Your task to perform on an android device: set the stopwatch Image 0: 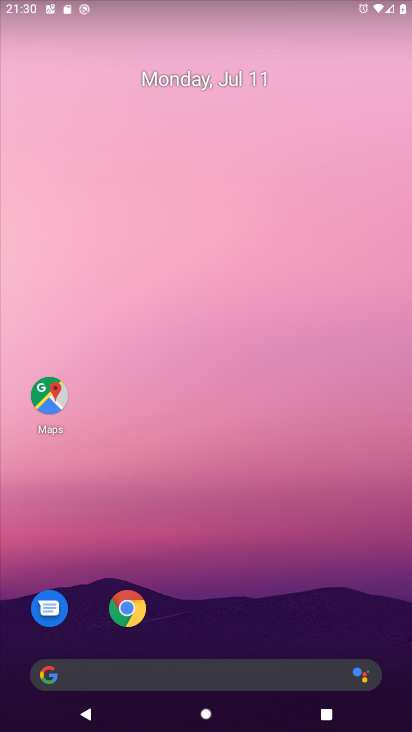
Step 0: drag from (254, 620) to (172, 204)
Your task to perform on an android device: set the stopwatch Image 1: 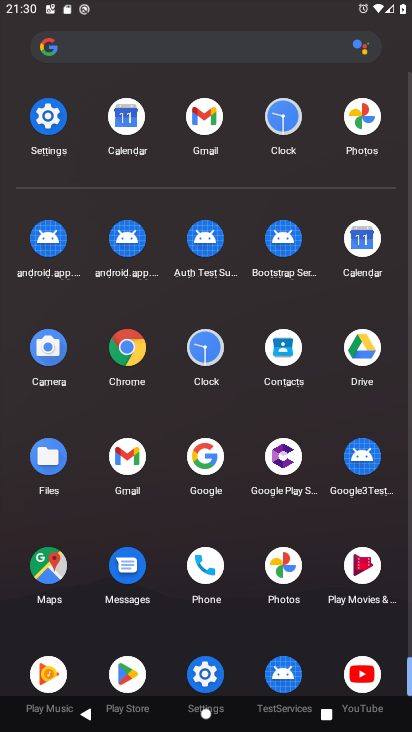
Step 1: click (273, 138)
Your task to perform on an android device: set the stopwatch Image 2: 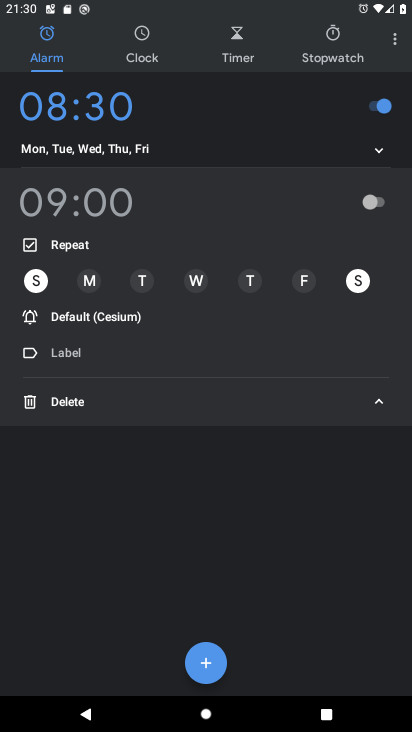
Step 2: click (333, 58)
Your task to perform on an android device: set the stopwatch Image 3: 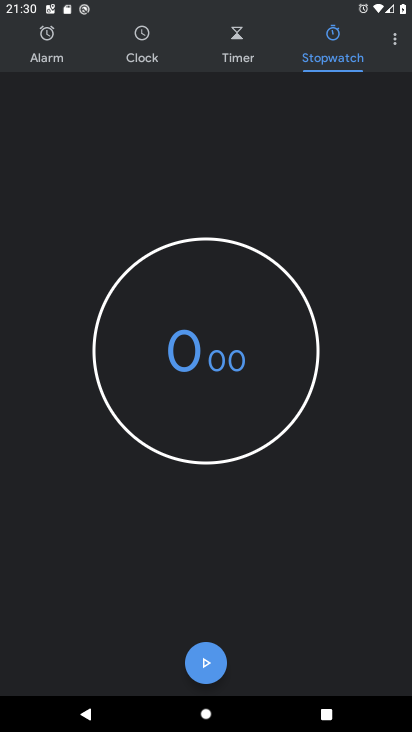
Step 3: task complete